Your task to perform on an android device: change timer sound Image 0: 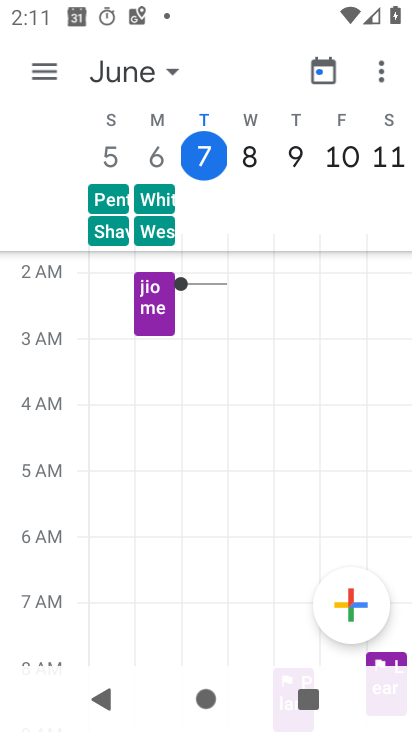
Step 0: press home button
Your task to perform on an android device: change timer sound Image 1: 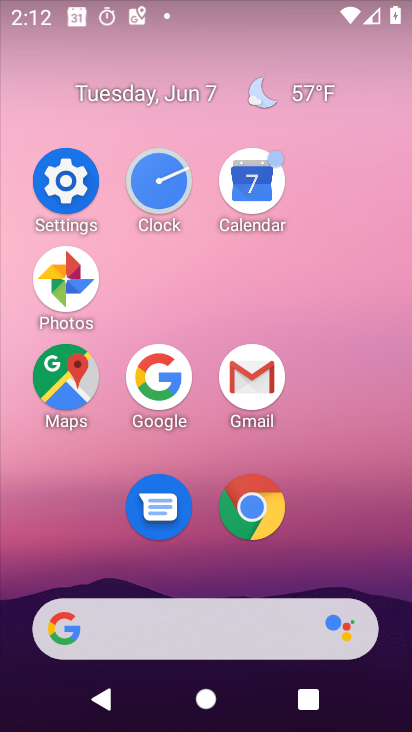
Step 1: click (165, 194)
Your task to perform on an android device: change timer sound Image 2: 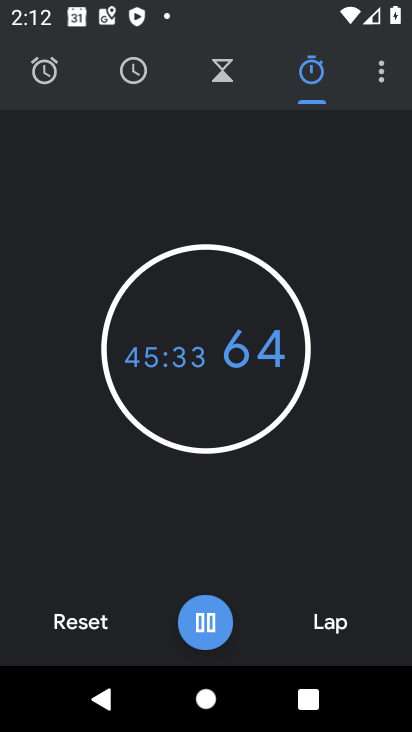
Step 2: click (387, 79)
Your task to perform on an android device: change timer sound Image 3: 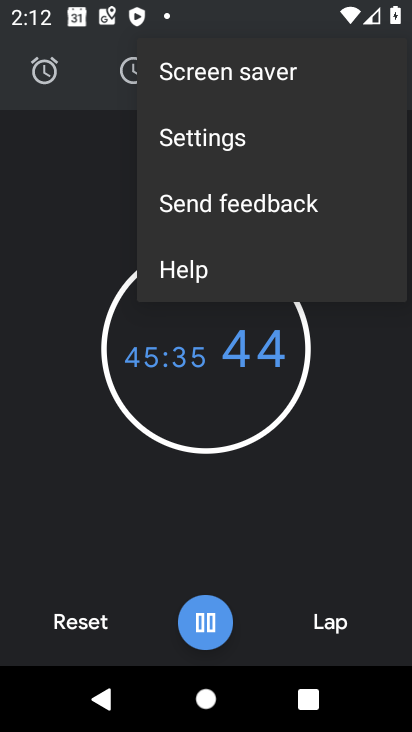
Step 3: click (286, 141)
Your task to perform on an android device: change timer sound Image 4: 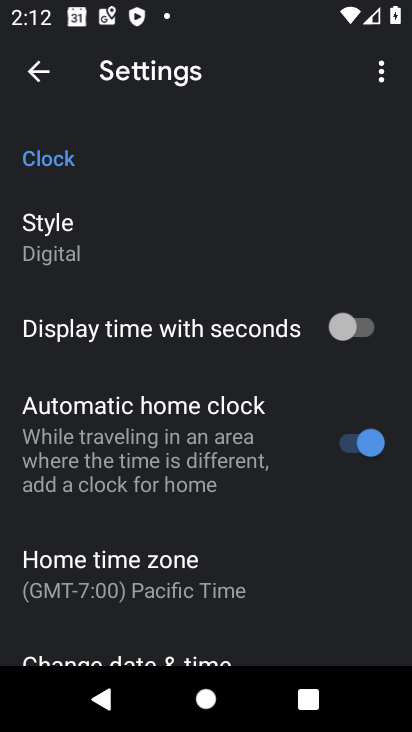
Step 4: drag from (257, 486) to (227, 157)
Your task to perform on an android device: change timer sound Image 5: 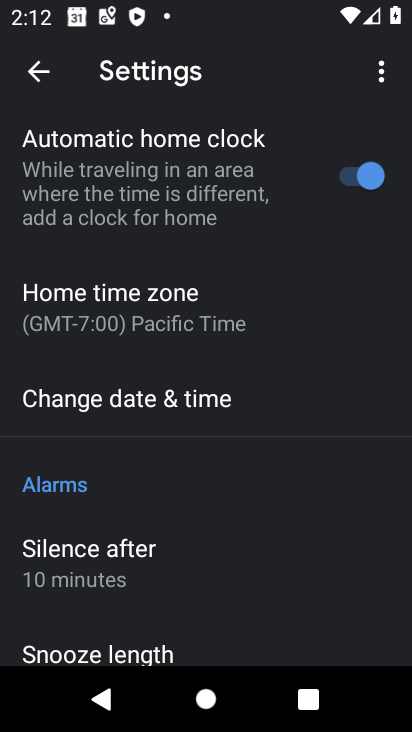
Step 5: drag from (229, 364) to (192, 194)
Your task to perform on an android device: change timer sound Image 6: 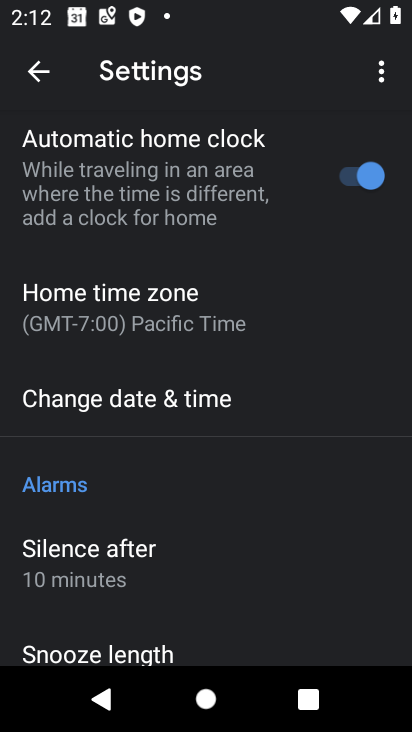
Step 6: drag from (127, 471) to (174, 137)
Your task to perform on an android device: change timer sound Image 7: 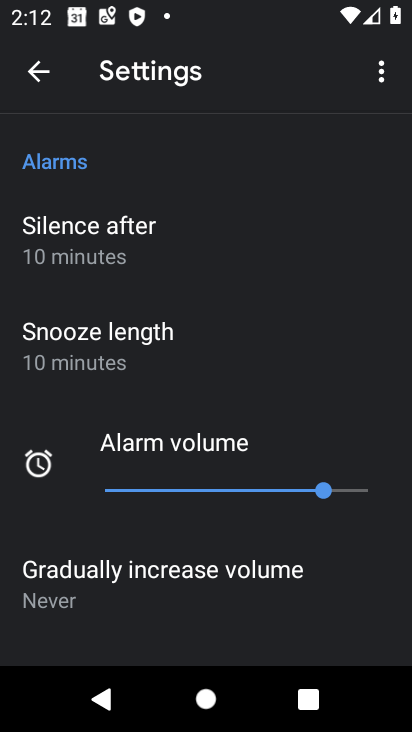
Step 7: drag from (189, 401) to (185, 101)
Your task to perform on an android device: change timer sound Image 8: 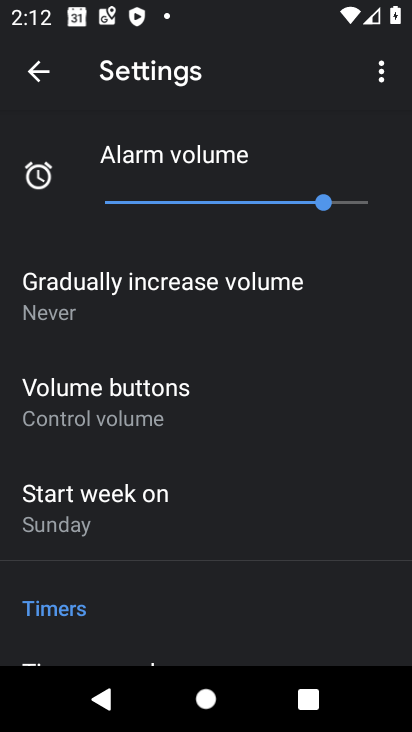
Step 8: drag from (224, 433) to (222, 136)
Your task to perform on an android device: change timer sound Image 9: 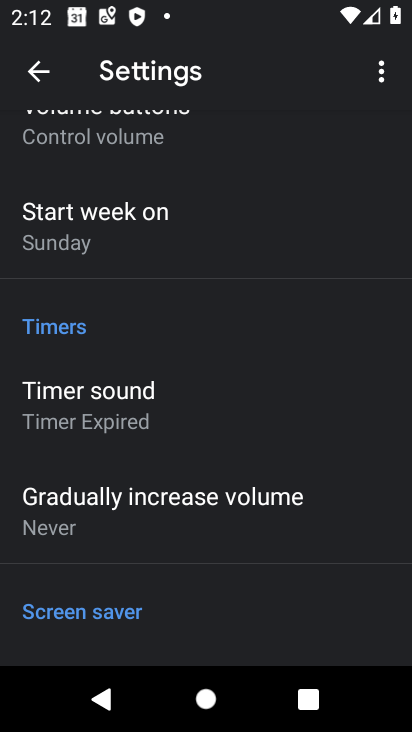
Step 9: click (198, 375)
Your task to perform on an android device: change timer sound Image 10: 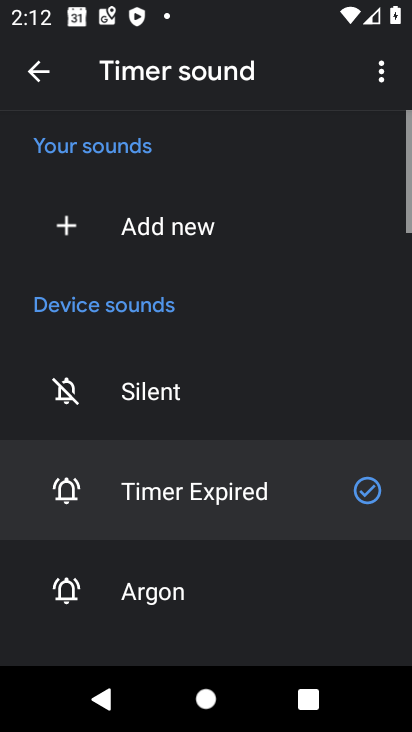
Step 10: click (132, 578)
Your task to perform on an android device: change timer sound Image 11: 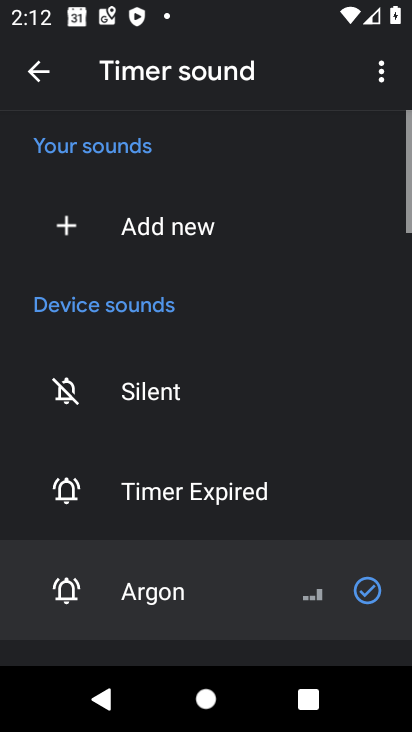
Step 11: task complete